Your task to perform on an android device: see sites visited before in the chrome app Image 0: 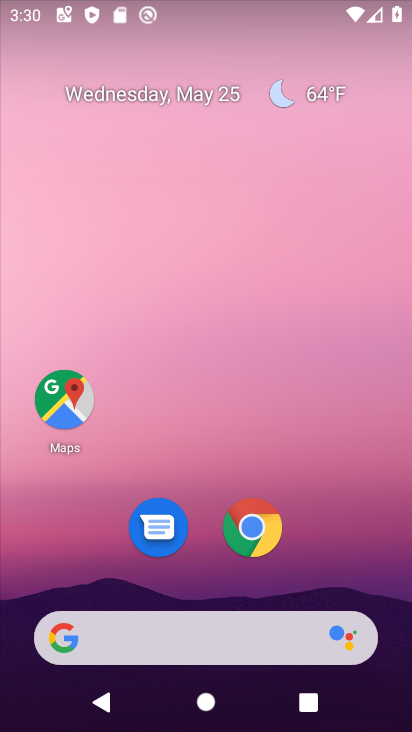
Step 0: click (258, 538)
Your task to perform on an android device: see sites visited before in the chrome app Image 1: 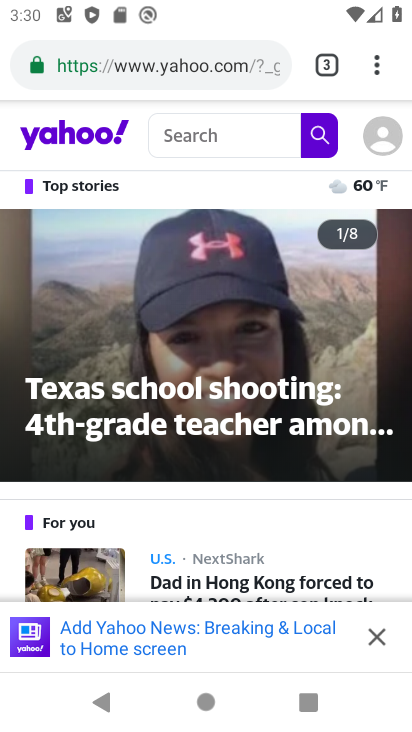
Step 1: task complete